Your task to perform on an android device: change keyboard looks Image 0: 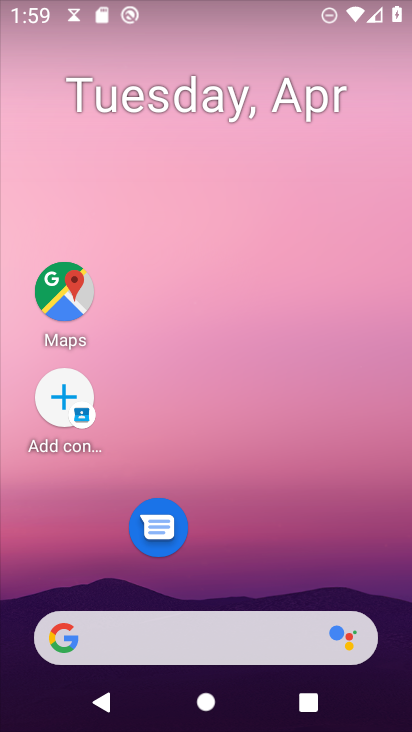
Step 0: drag from (257, 589) to (243, 159)
Your task to perform on an android device: change keyboard looks Image 1: 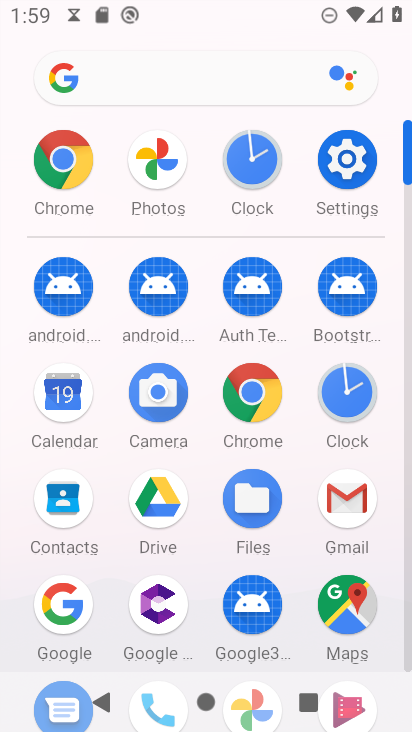
Step 1: click (348, 160)
Your task to perform on an android device: change keyboard looks Image 2: 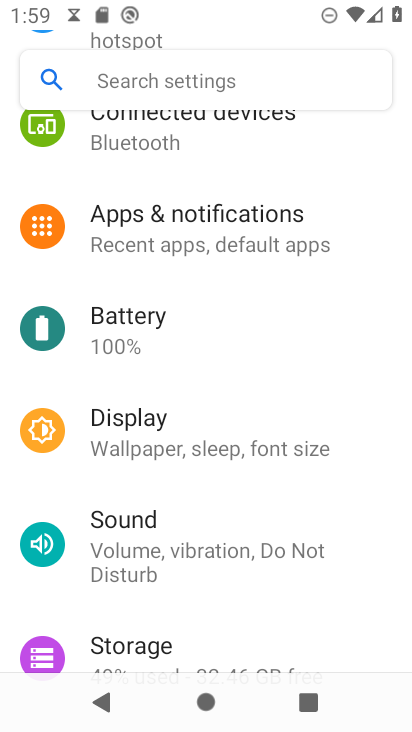
Step 2: drag from (206, 492) to (234, 324)
Your task to perform on an android device: change keyboard looks Image 3: 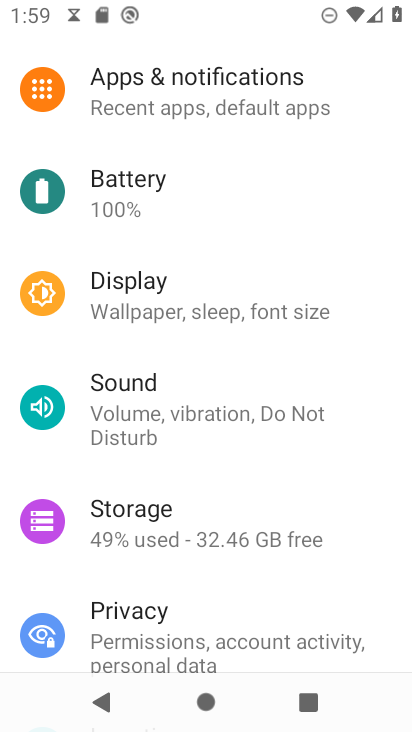
Step 3: drag from (201, 464) to (227, 345)
Your task to perform on an android device: change keyboard looks Image 4: 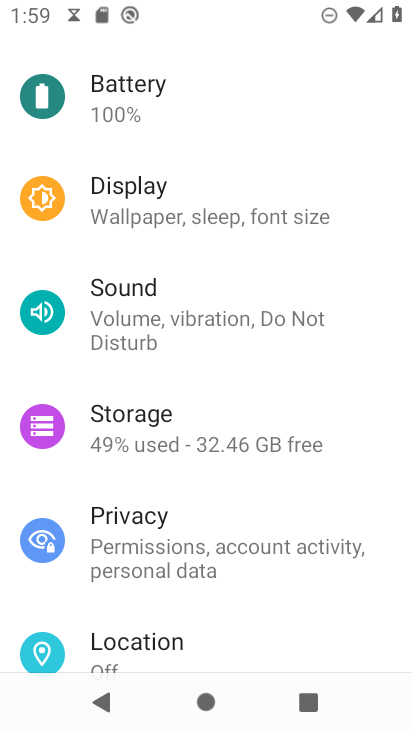
Step 4: drag from (206, 497) to (235, 358)
Your task to perform on an android device: change keyboard looks Image 5: 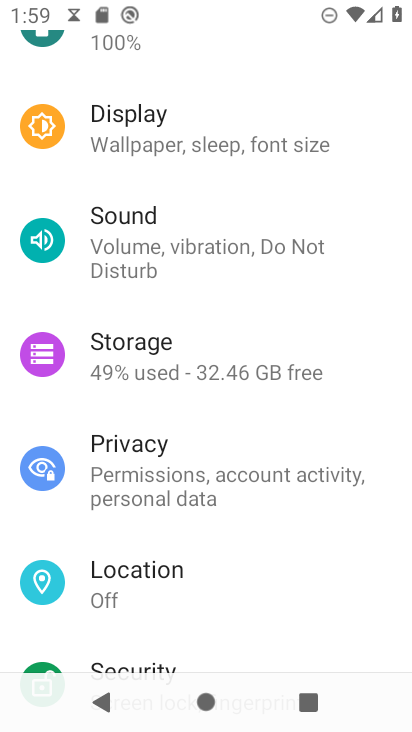
Step 5: drag from (211, 539) to (237, 388)
Your task to perform on an android device: change keyboard looks Image 6: 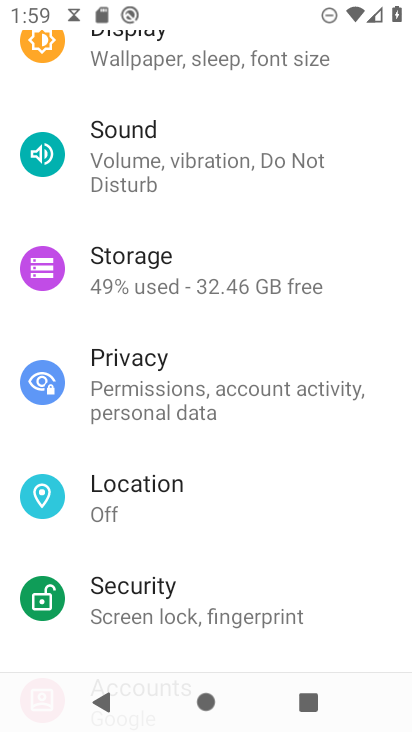
Step 6: drag from (197, 507) to (217, 340)
Your task to perform on an android device: change keyboard looks Image 7: 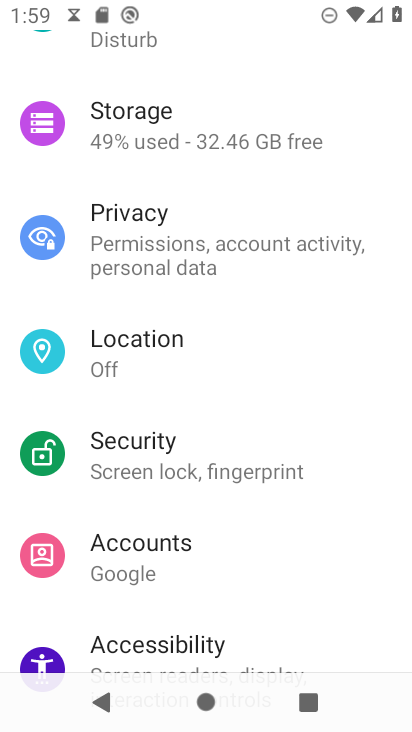
Step 7: drag from (225, 396) to (239, 280)
Your task to perform on an android device: change keyboard looks Image 8: 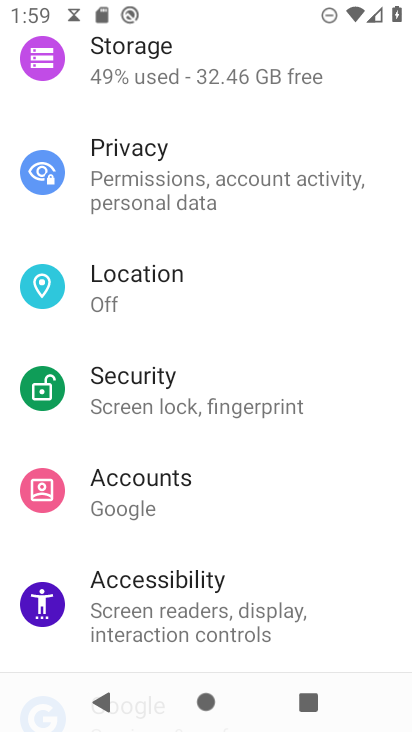
Step 8: drag from (210, 456) to (229, 334)
Your task to perform on an android device: change keyboard looks Image 9: 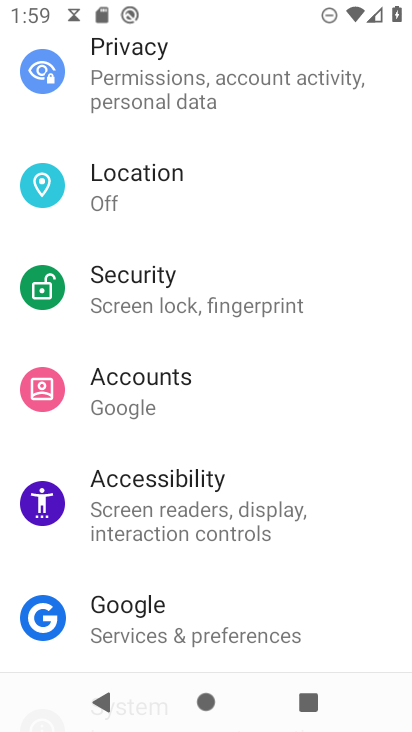
Step 9: drag from (243, 449) to (251, 343)
Your task to perform on an android device: change keyboard looks Image 10: 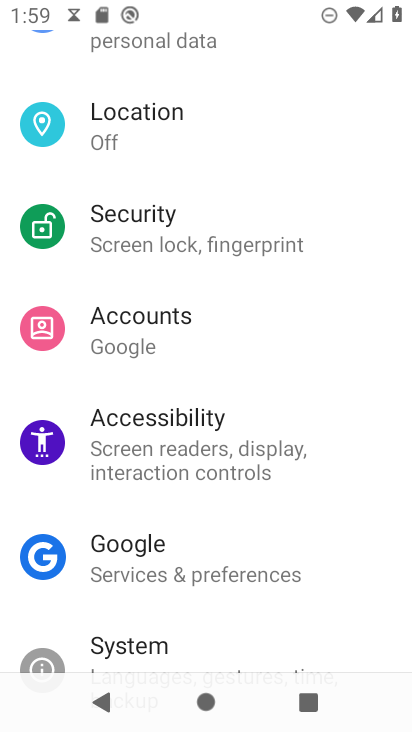
Step 10: drag from (241, 521) to (260, 346)
Your task to perform on an android device: change keyboard looks Image 11: 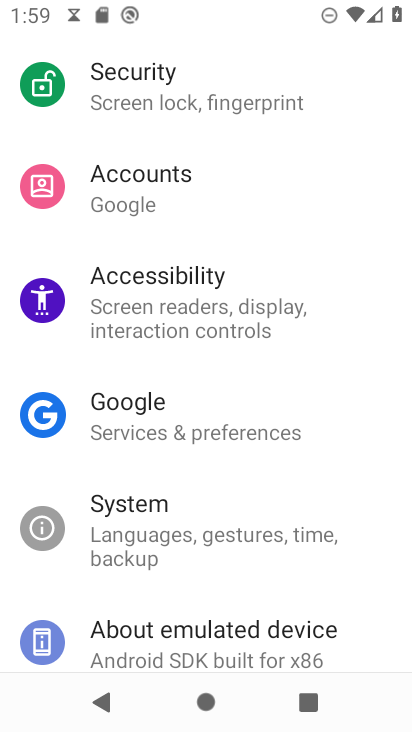
Step 11: drag from (232, 478) to (247, 344)
Your task to perform on an android device: change keyboard looks Image 12: 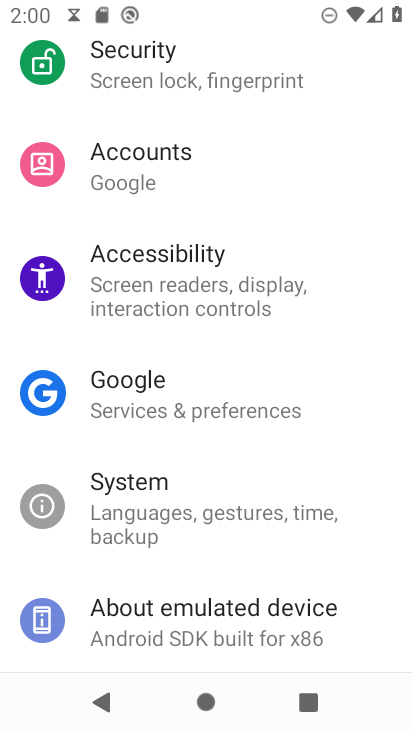
Step 12: click (128, 479)
Your task to perform on an android device: change keyboard looks Image 13: 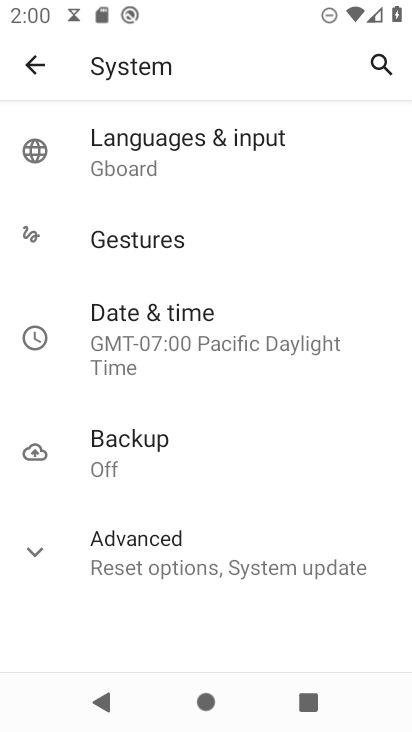
Step 13: click (171, 141)
Your task to perform on an android device: change keyboard looks Image 14: 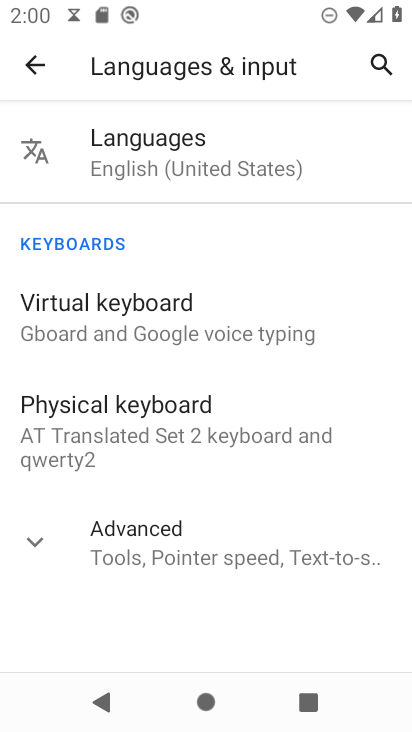
Step 14: click (171, 301)
Your task to perform on an android device: change keyboard looks Image 15: 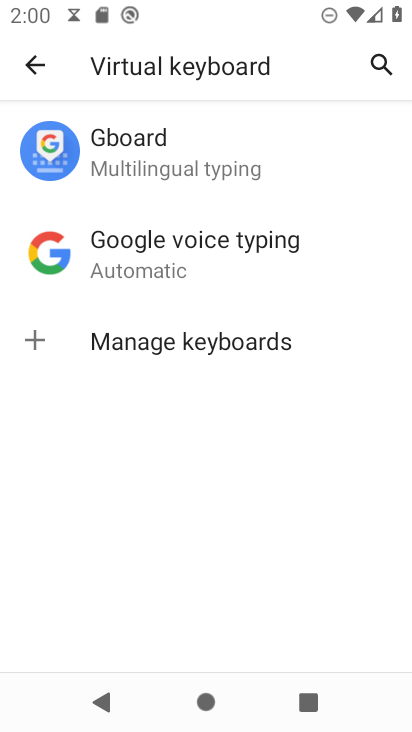
Step 15: click (140, 134)
Your task to perform on an android device: change keyboard looks Image 16: 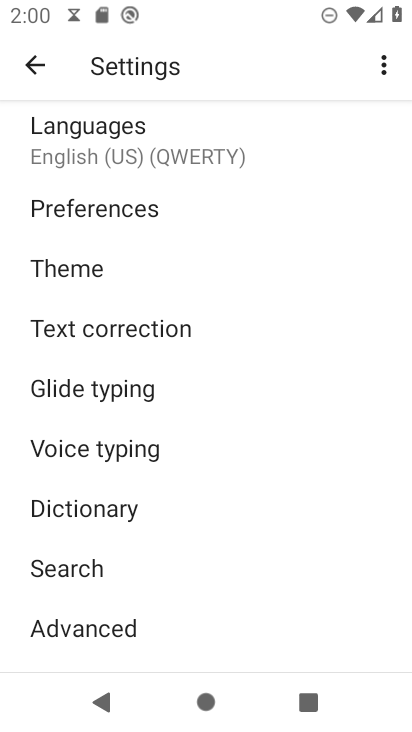
Step 16: click (91, 275)
Your task to perform on an android device: change keyboard looks Image 17: 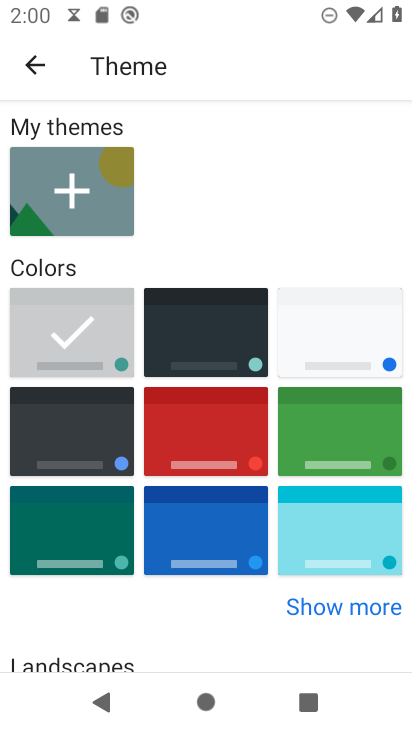
Step 17: click (246, 541)
Your task to perform on an android device: change keyboard looks Image 18: 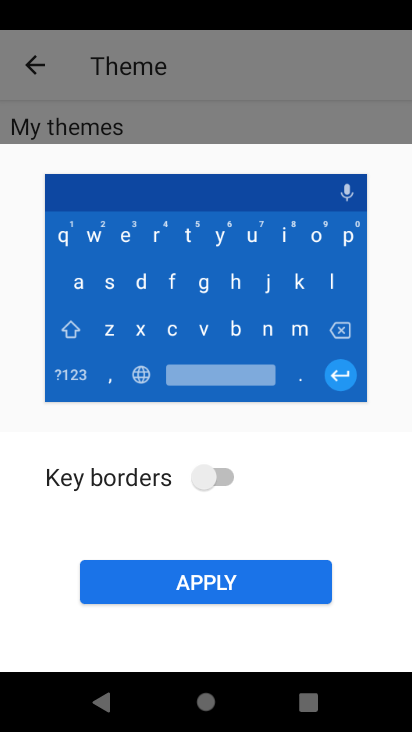
Step 18: click (202, 473)
Your task to perform on an android device: change keyboard looks Image 19: 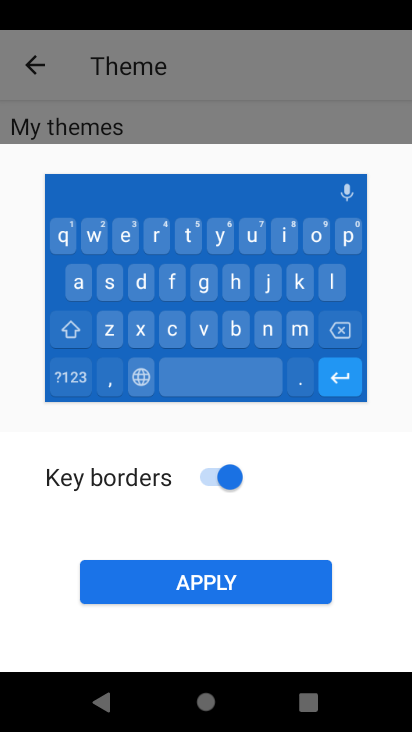
Step 19: click (243, 573)
Your task to perform on an android device: change keyboard looks Image 20: 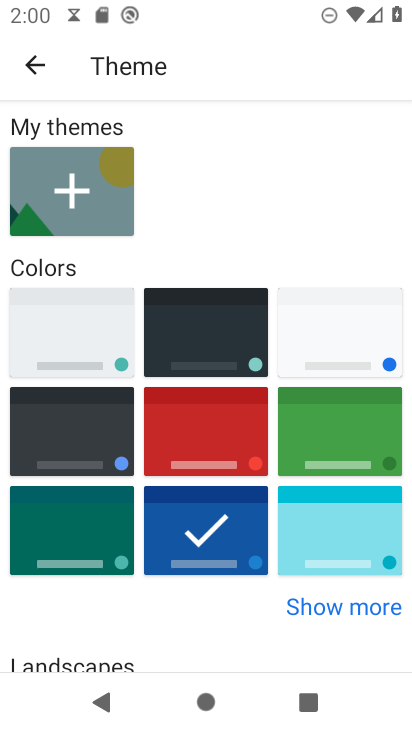
Step 20: task complete